Your task to perform on an android device: Go to eBay Image 0: 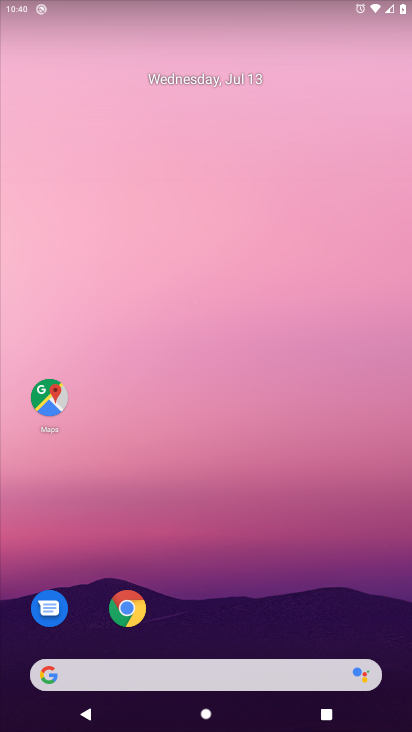
Step 0: click (110, 674)
Your task to perform on an android device: Go to eBay Image 1: 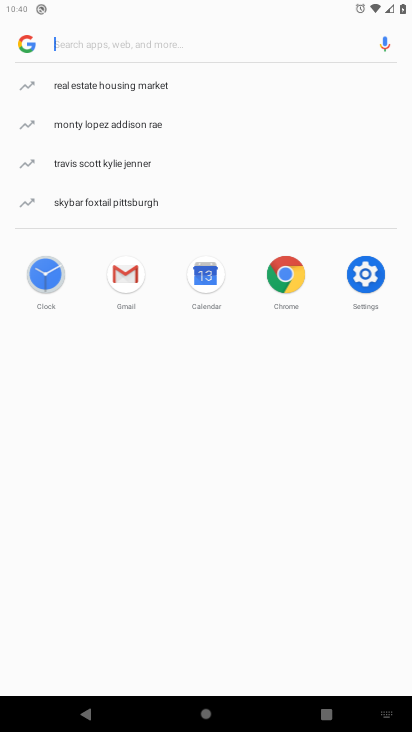
Step 1: type "eBay"
Your task to perform on an android device: Go to eBay Image 2: 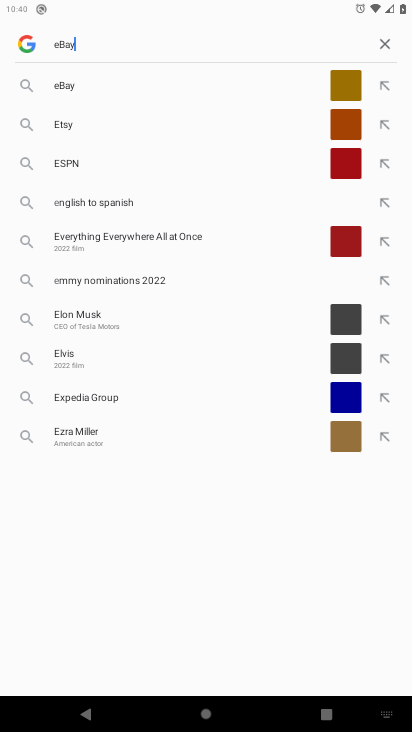
Step 2: type ""
Your task to perform on an android device: Go to eBay Image 3: 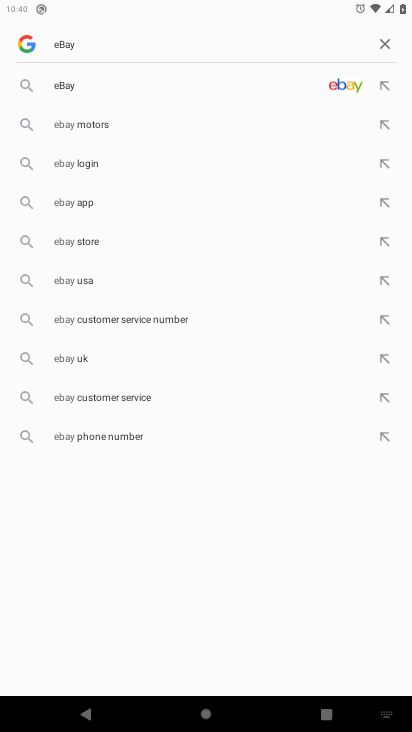
Step 3: click (140, 88)
Your task to perform on an android device: Go to eBay Image 4: 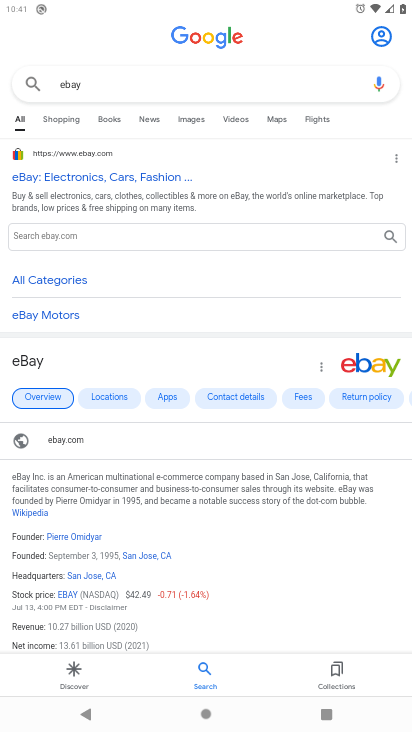
Step 4: task complete